Your task to perform on an android device: Go to Amazon Image 0: 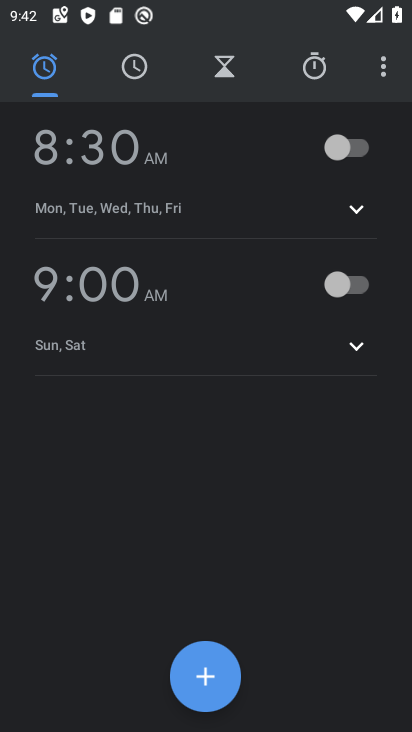
Step 0: press home button
Your task to perform on an android device: Go to Amazon Image 1: 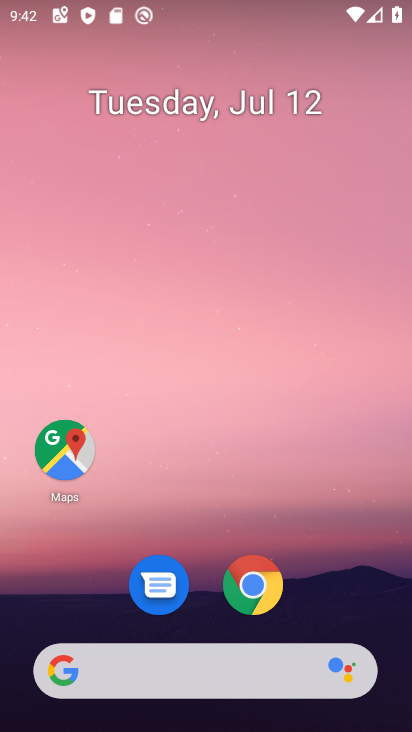
Step 1: click (253, 599)
Your task to perform on an android device: Go to Amazon Image 2: 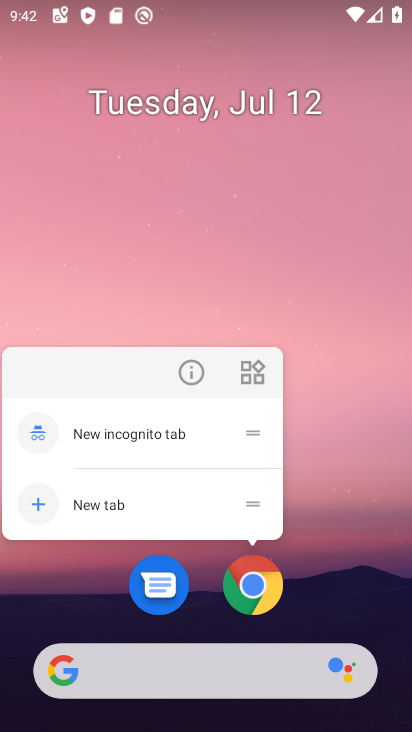
Step 2: click (261, 589)
Your task to perform on an android device: Go to Amazon Image 3: 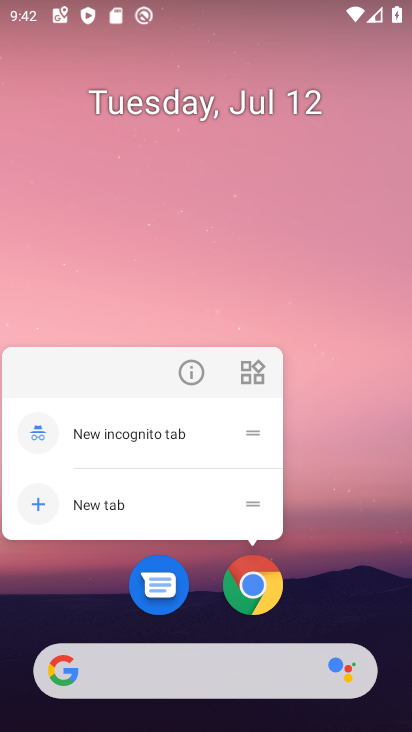
Step 3: click (246, 594)
Your task to perform on an android device: Go to Amazon Image 4: 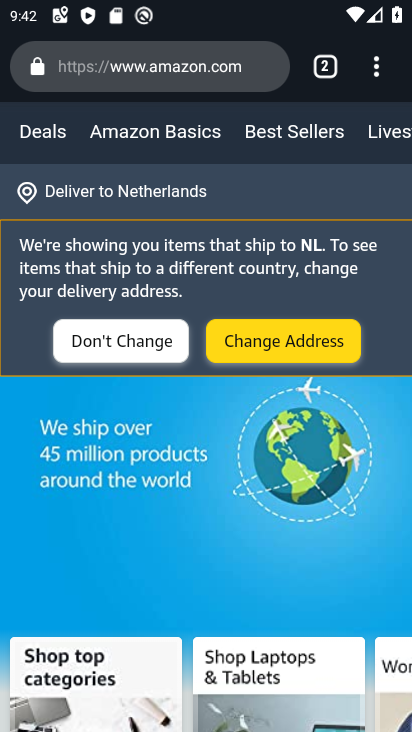
Step 4: task complete